Your task to perform on an android device: Open my contact list Image 0: 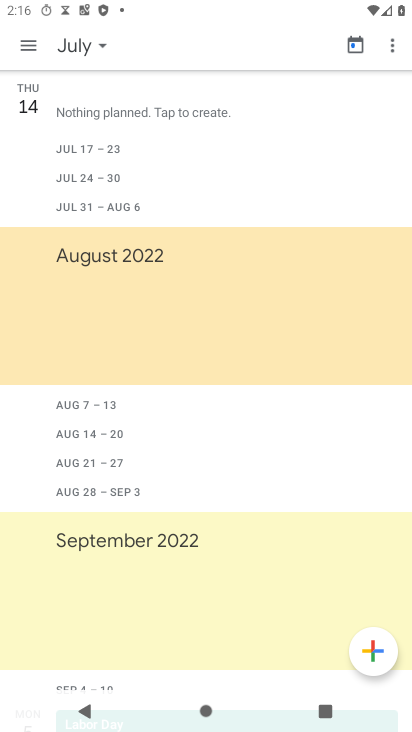
Step 0: press home button
Your task to perform on an android device: Open my contact list Image 1: 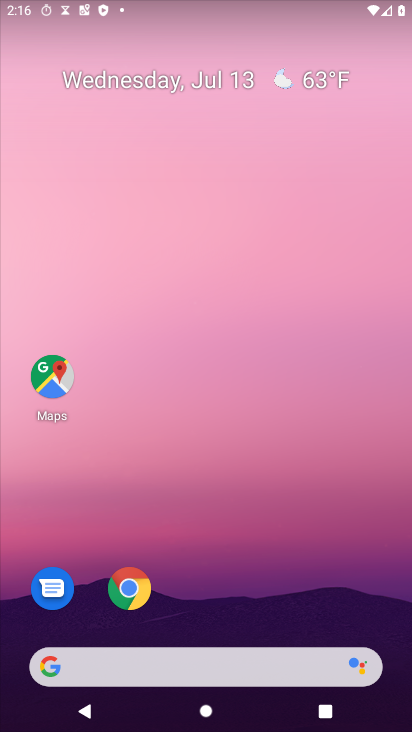
Step 1: drag from (199, 649) to (217, 116)
Your task to perform on an android device: Open my contact list Image 2: 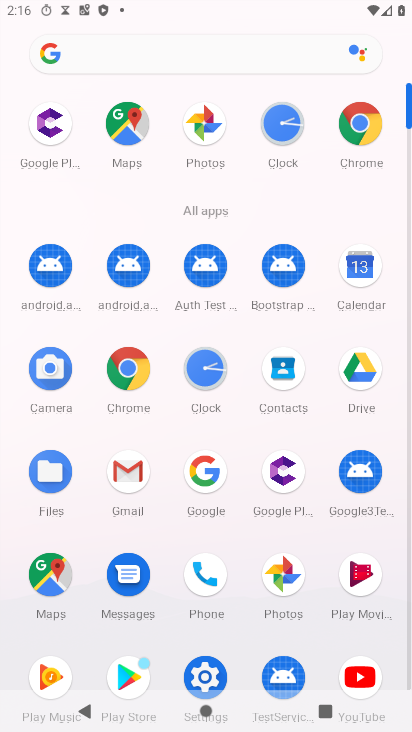
Step 2: click (284, 376)
Your task to perform on an android device: Open my contact list Image 3: 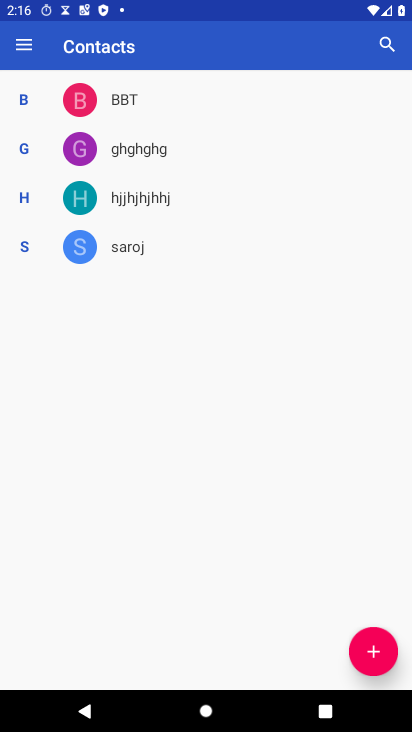
Step 3: task complete